Your task to perform on an android device: turn on data saver in the chrome app Image 0: 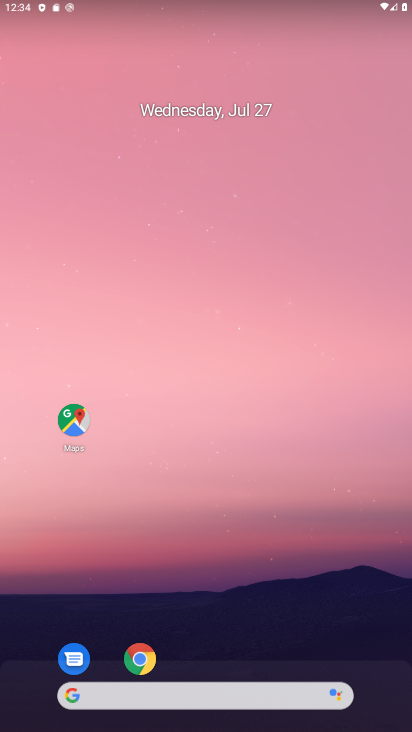
Step 0: click (138, 665)
Your task to perform on an android device: turn on data saver in the chrome app Image 1: 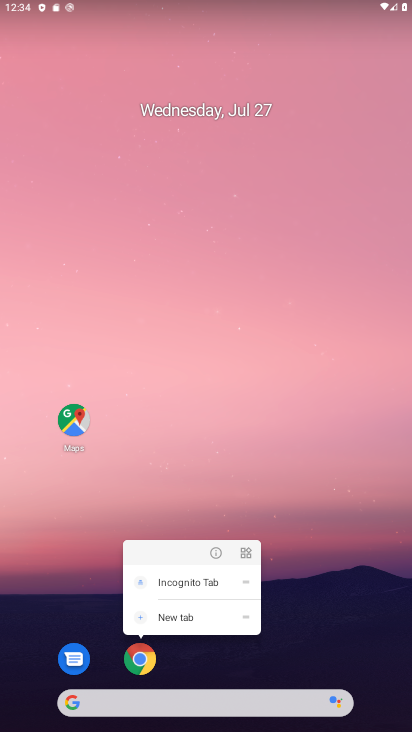
Step 1: click (138, 665)
Your task to perform on an android device: turn on data saver in the chrome app Image 2: 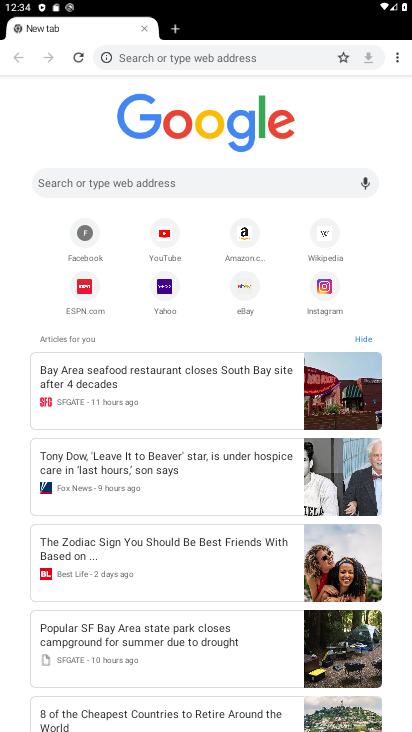
Step 2: click (399, 64)
Your task to perform on an android device: turn on data saver in the chrome app Image 3: 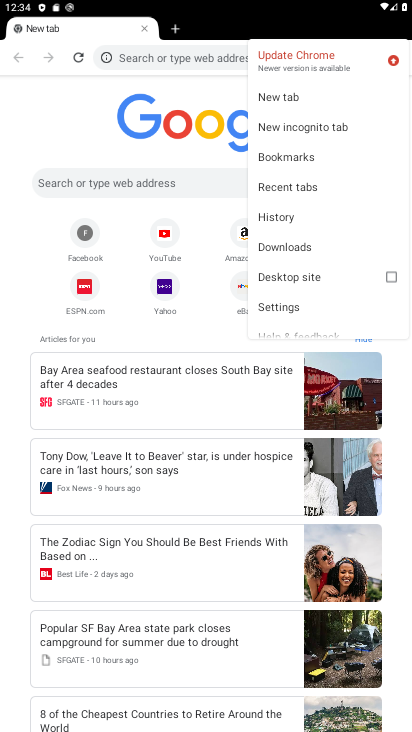
Step 3: click (277, 303)
Your task to perform on an android device: turn on data saver in the chrome app Image 4: 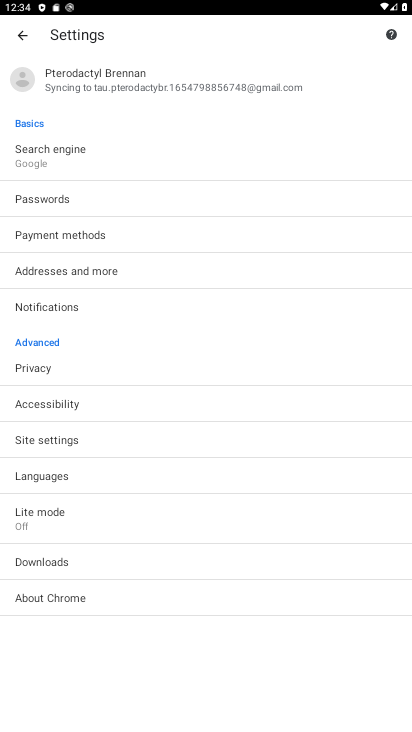
Step 4: click (90, 527)
Your task to perform on an android device: turn on data saver in the chrome app Image 5: 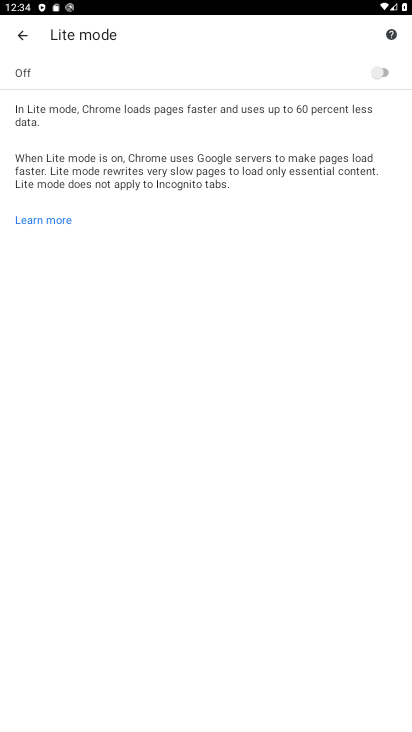
Step 5: click (380, 74)
Your task to perform on an android device: turn on data saver in the chrome app Image 6: 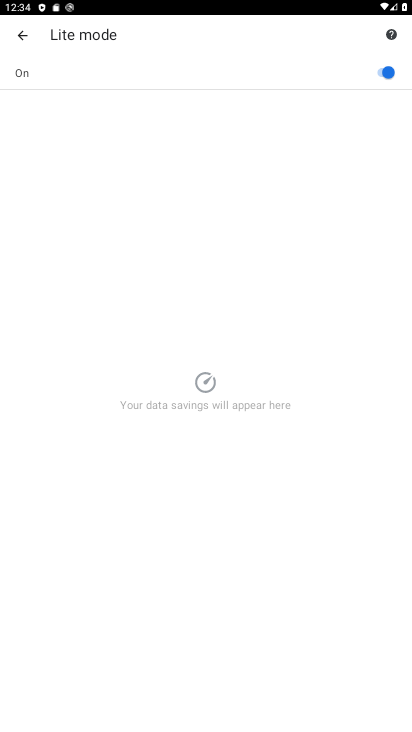
Step 6: task complete